Your task to perform on an android device: Open network settings Image 0: 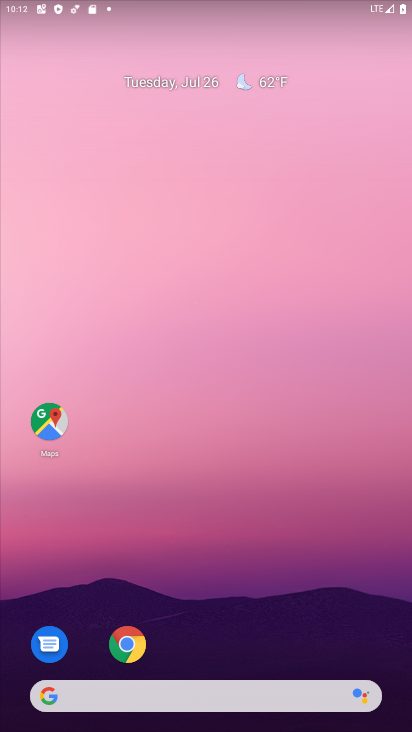
Step 0: drag from (258, 653) to (253, 0)
Your task to perform on an android device: Open network settings Image 1: 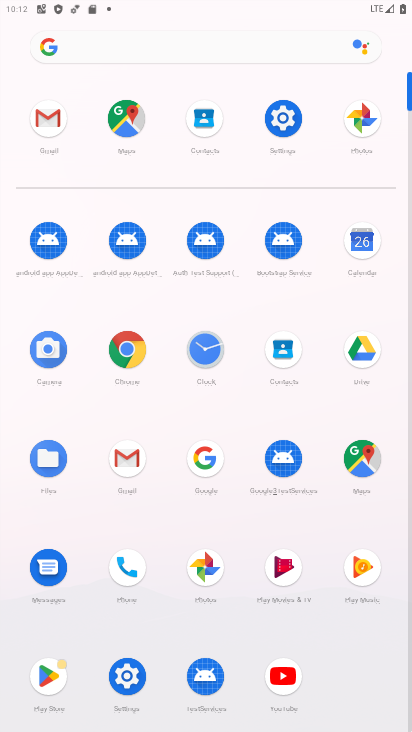
Step 1: click (285, 114)
Your task to perform on an android device: Open network settings Image 2: 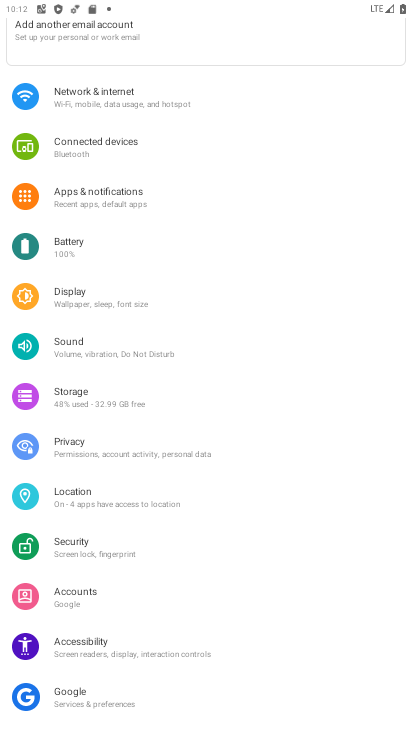
Step 2: click (84, 110)
Your task to perform on an android device: Open network settings Image 3: 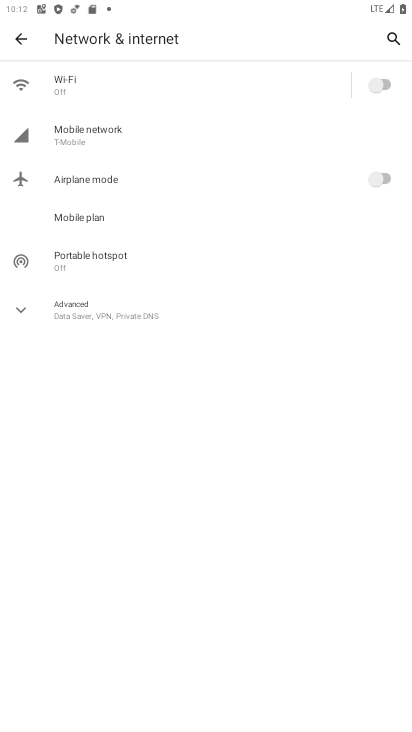
Step 3: click (65, 148)
Your task to perform on an android device: Open network settings Image 4: 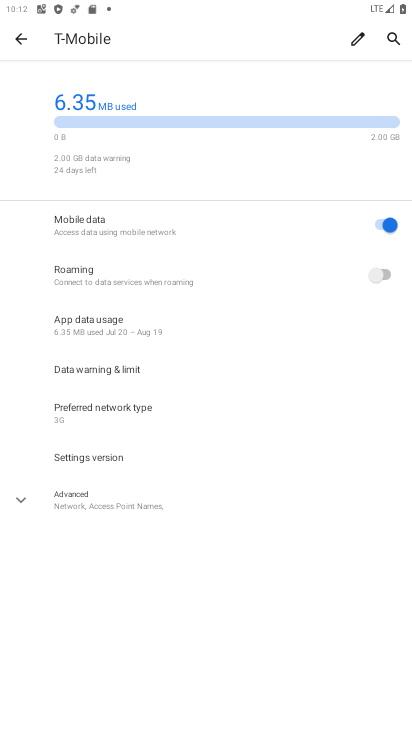
Step 4: click (20, 508)
Your task to perform on an android device: Open network settings Image 5: 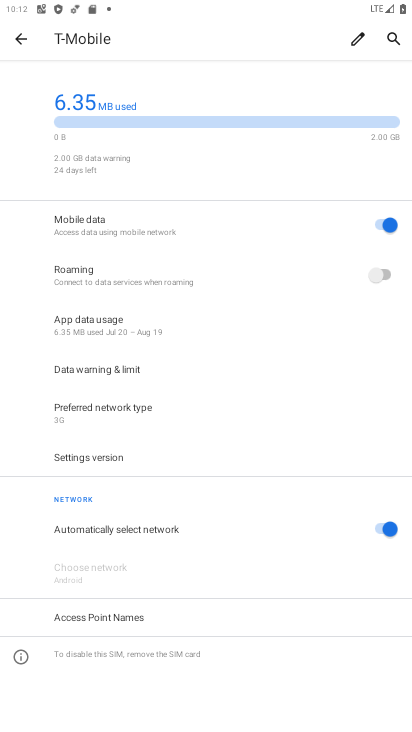
Step 5: task complete